Your task to perform on an android device: Open Youtube and go to "Your channel" Image 0: 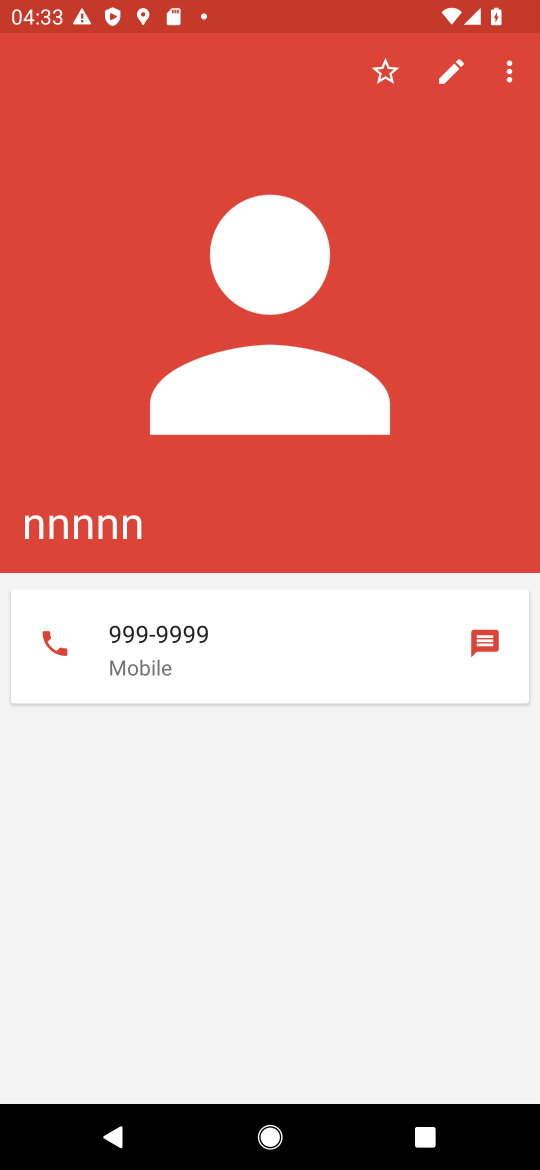
Step 0: press home button
Your task to perform on an android device: Open Youtube and go to "Your channel" Image 1: 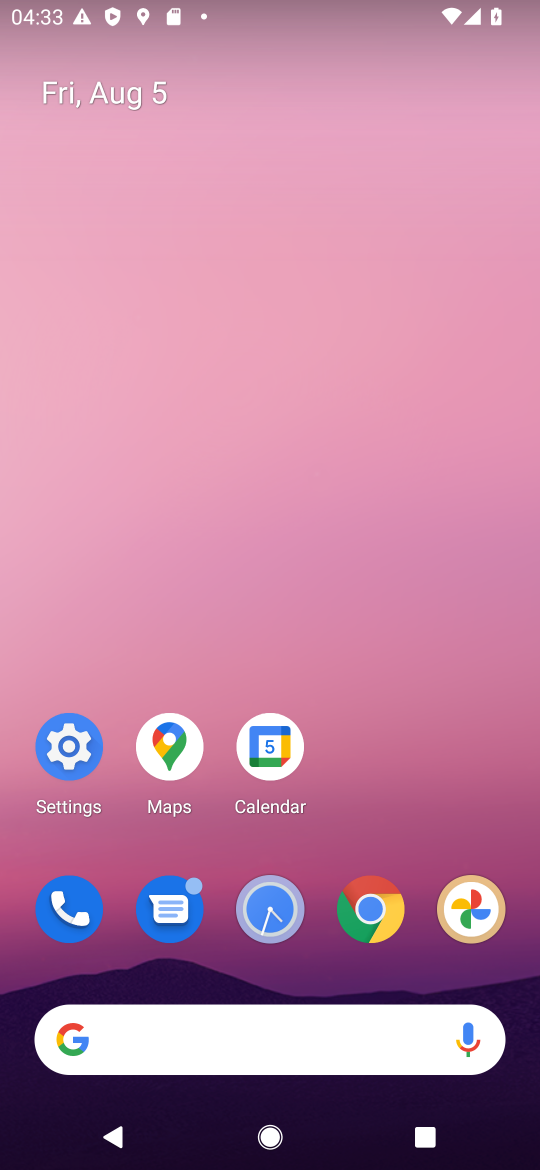
Step 1: drag from (369, 821) to (255, 177)
Your task to perform on an android device: Open Youtube and go to "Your channel" Image 2: 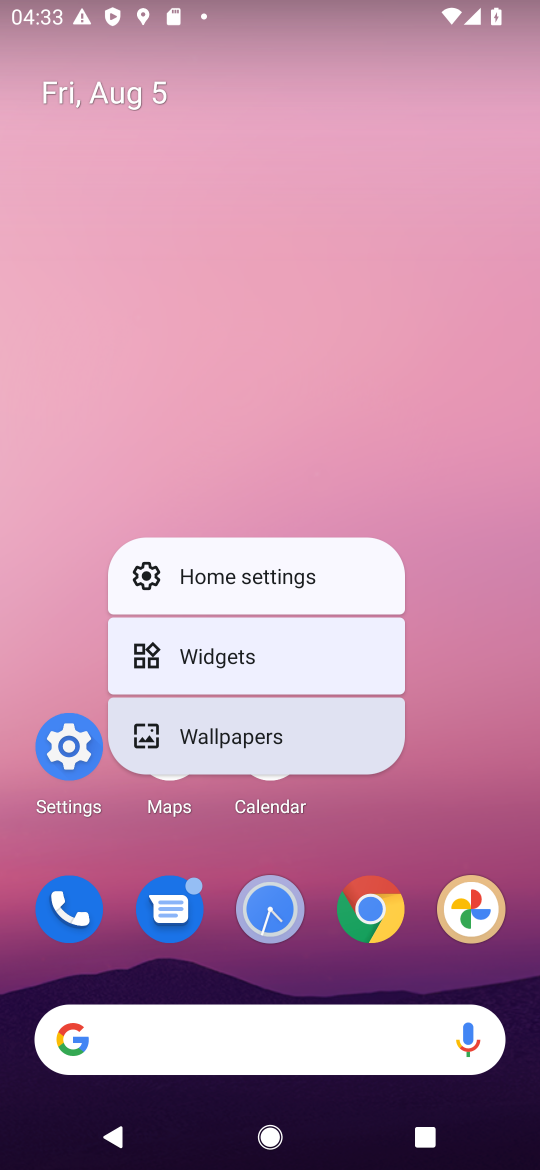
Step 2: click (291, 419)
Your task to perform on an android device: Open Youtube and go to "Your channel" Image 3: 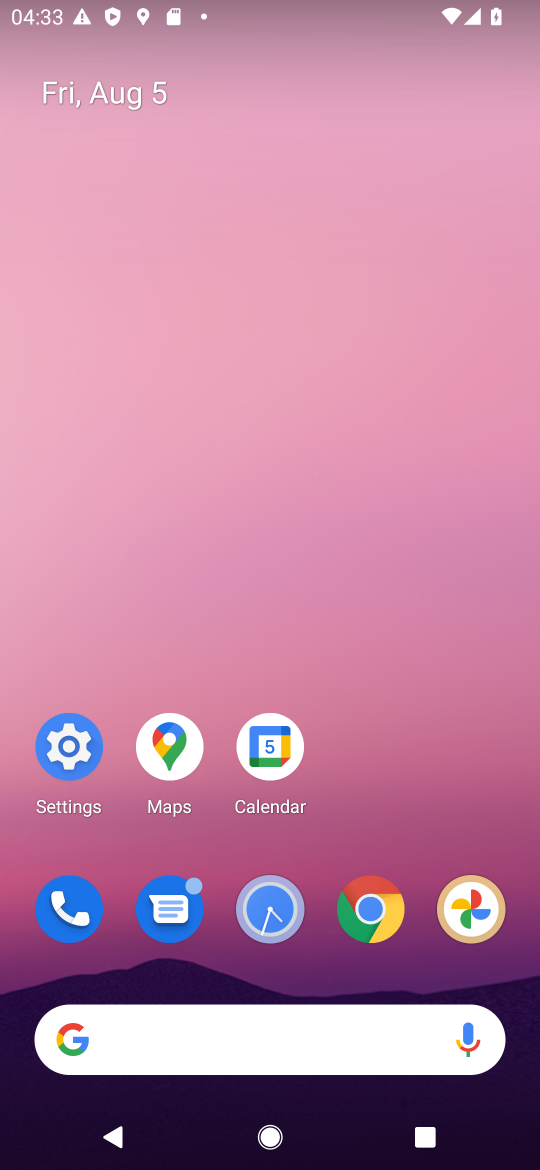
Step 3: drag from (378, 768) to (354, 133)
Your task to perform on an android device: Open Youtube and go to "Your channel" Image 4: 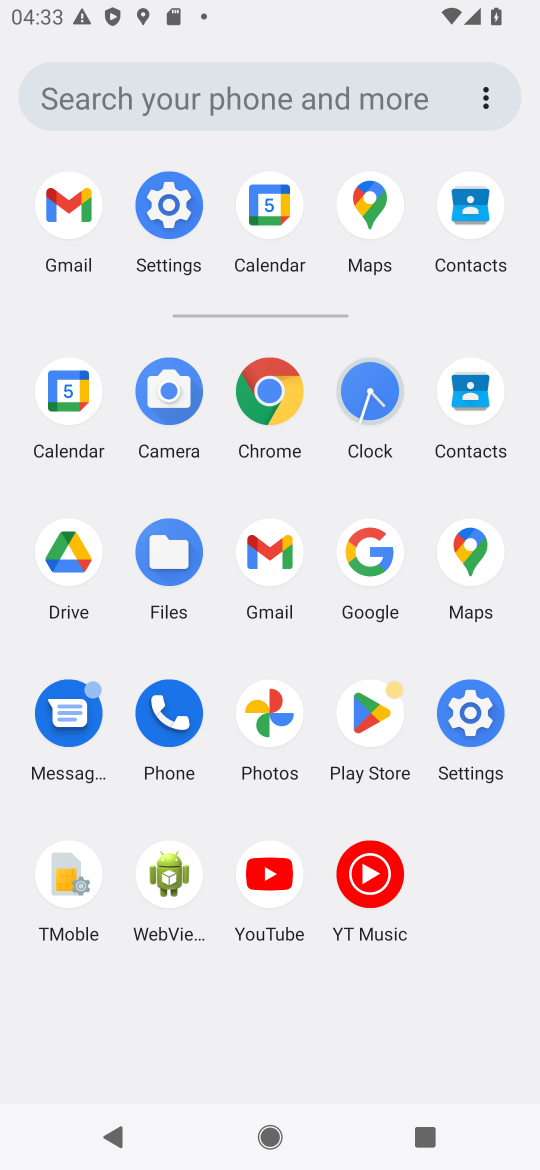
Step 4: click (271, 874)
Your task to perform on an android device: Open Youtube and go to "Your channel" Image 5: 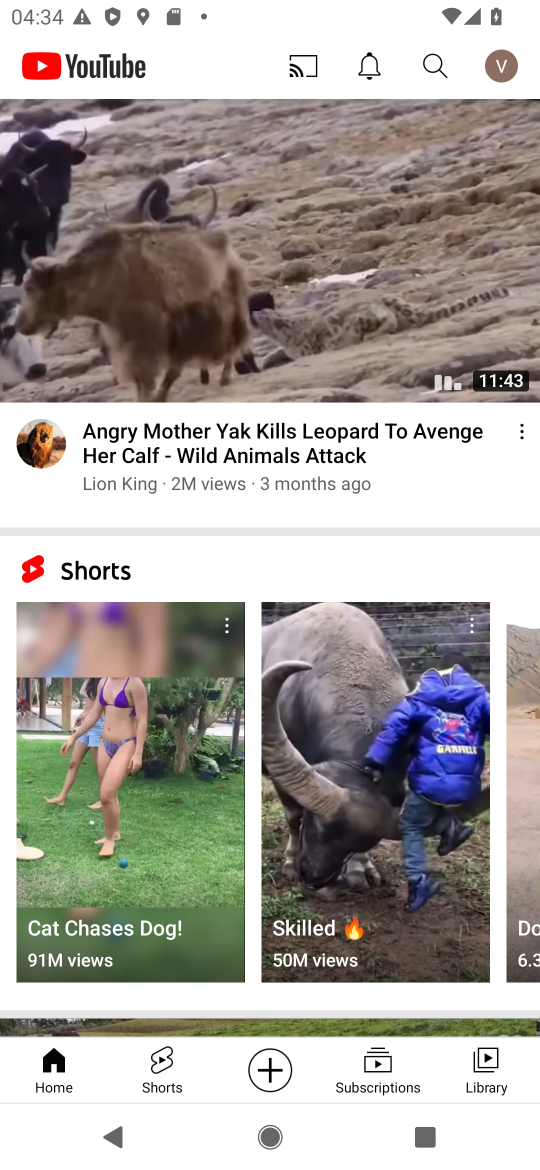
Step 5: click (505, 62)
Your task to perform on an android device: Open Youtube and go to "Your channel" Image 6: 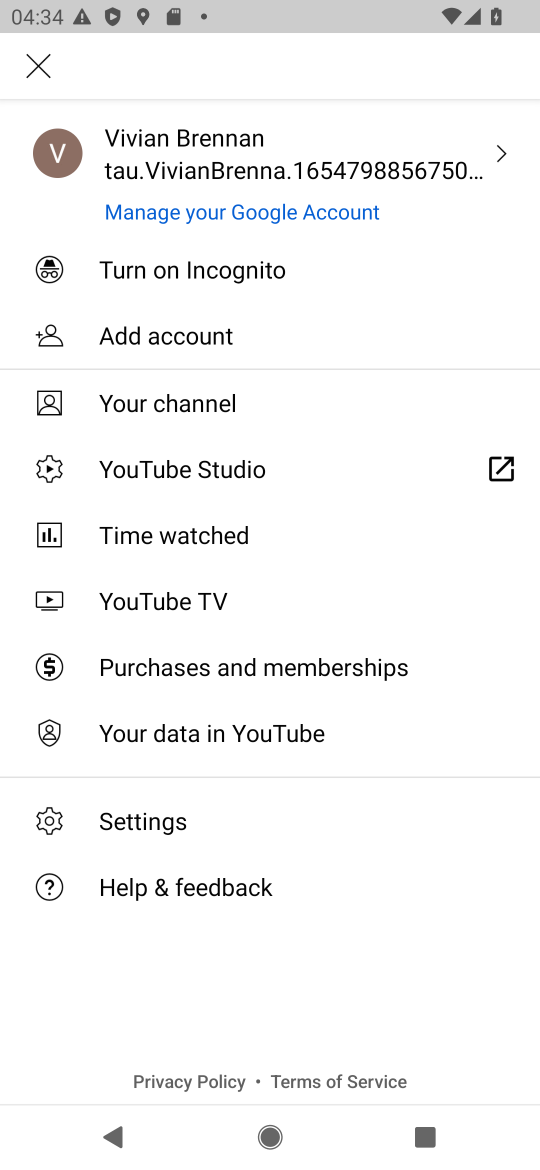
Step 6: click (198, 401)
Your task to perform on an android device: Open Youtube and go to "Your channel" Image 7: 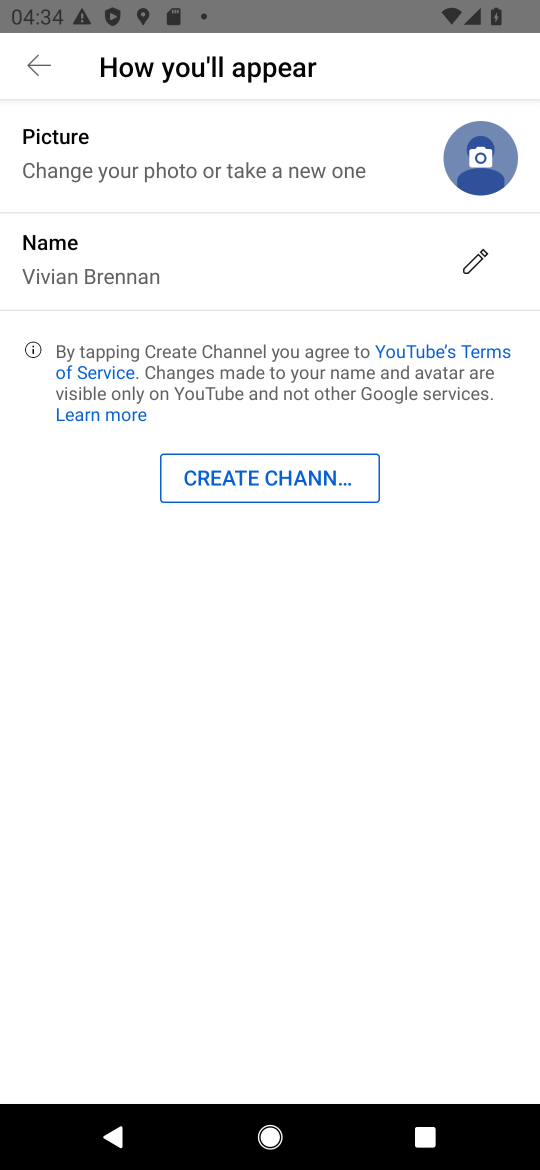
Step 7: task complete